Your task to perform on an android device: Open internet settings Image 0: 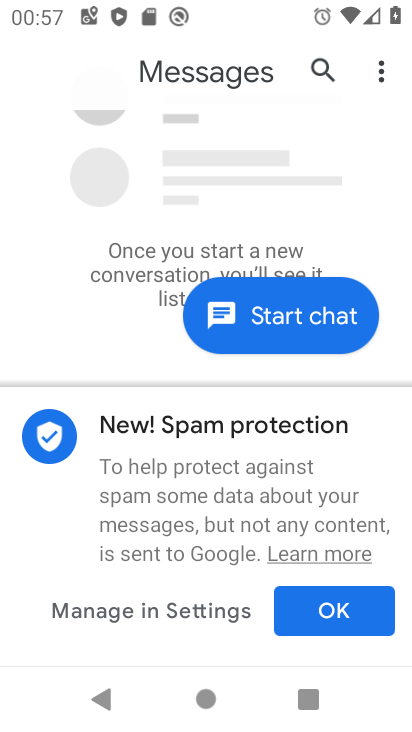
Step 0: press home button
Your task to perform on an android device: Open internet settings Image 1: 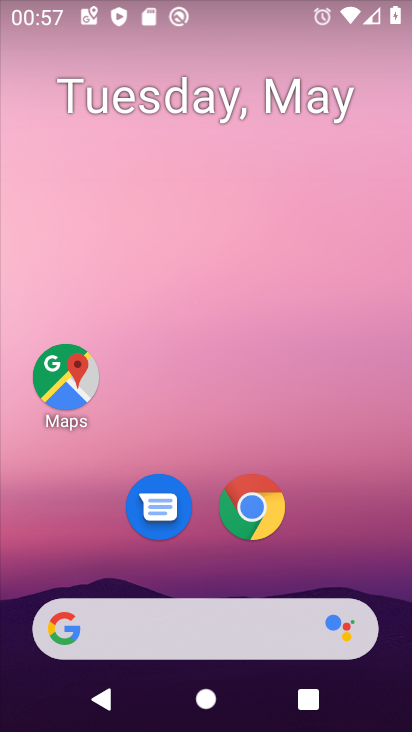
Step 1: drag from (169, 603) to (209, 250)
Your task to perform on an android device: Open internet settings Image 2: 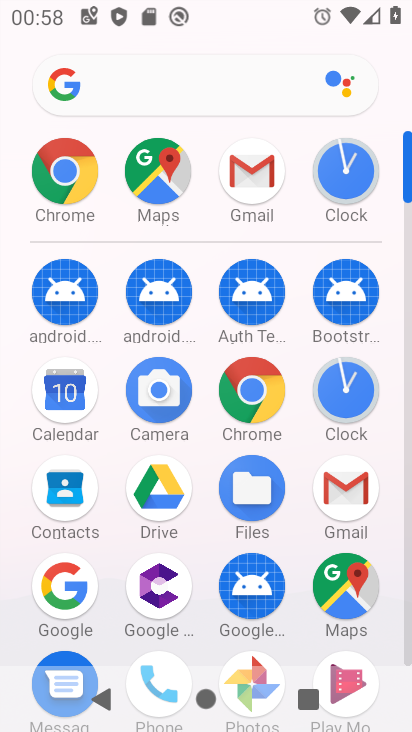
Step 2: drag from (140, 560) to (142, 179)
Your task to perform on an android device: Open internet settings Image 3: 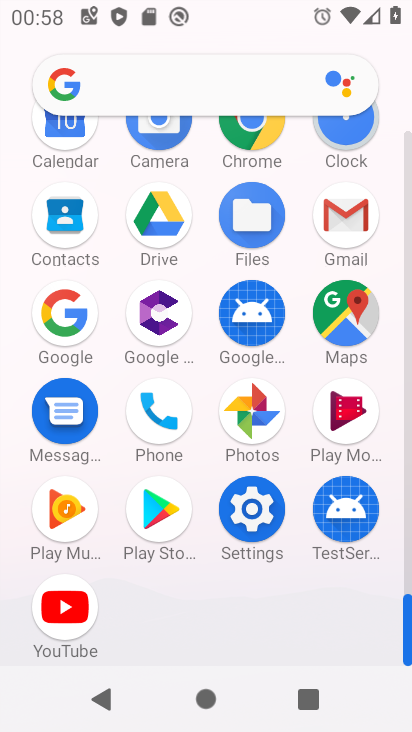
Step 3: click (258, 517)
Your task to perform on an android device: Open internet settings Image 4: 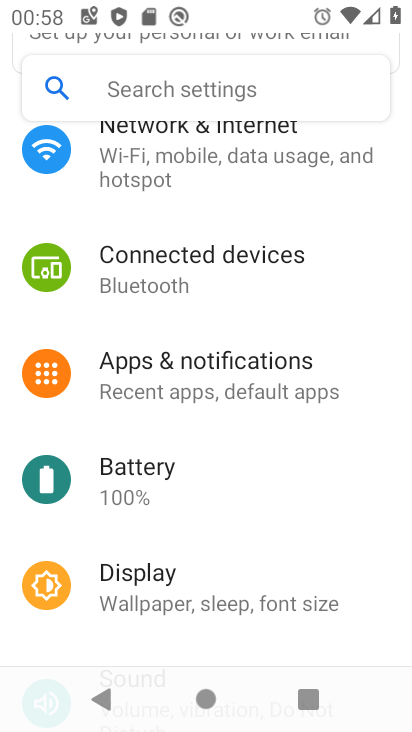
Step 4: drag from (185, 170) to (239, 574)
Your task to perform on an android device: Open internet settings Image 5: 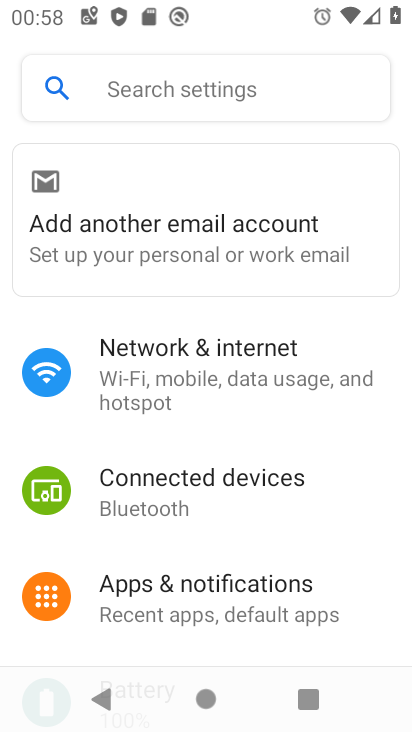
Step 5: click (184, 381)
Your task to perform on an android device: Open internet settings Image 6: 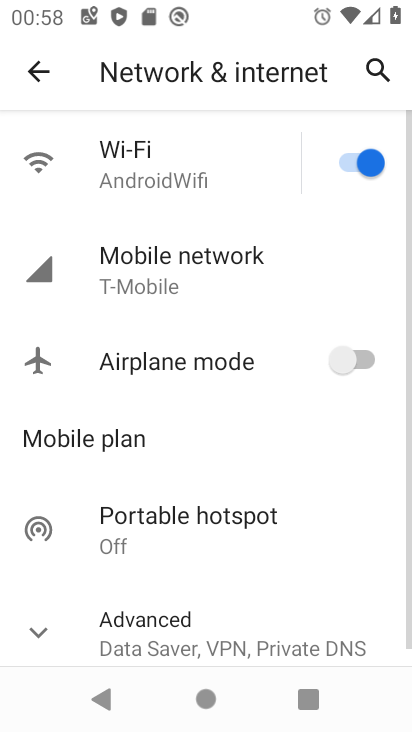
Step 6: drag from (230, 633) to (224, 200)
Your task to perform on an android device: Open internet settings Image 7: 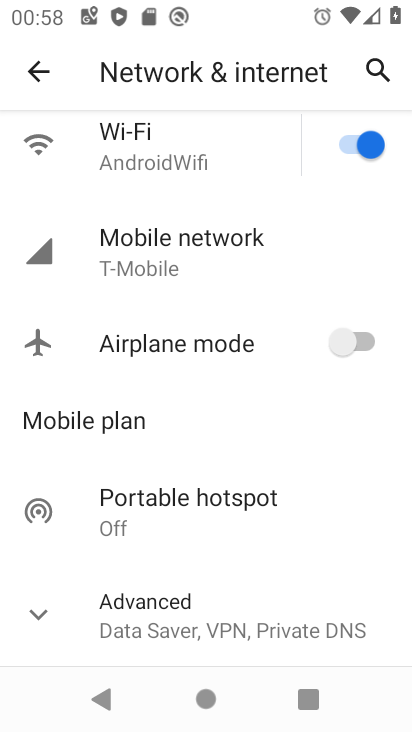
Step 7: click (196, 619)
Your task to perform on an android device: Open internet settings Image 8: 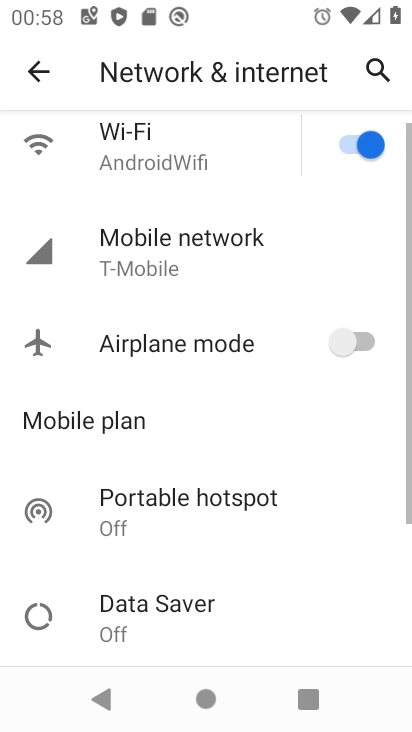
Step 8: task complete